Your task to perform on an android device: turn off picture-in-picture Image 0: 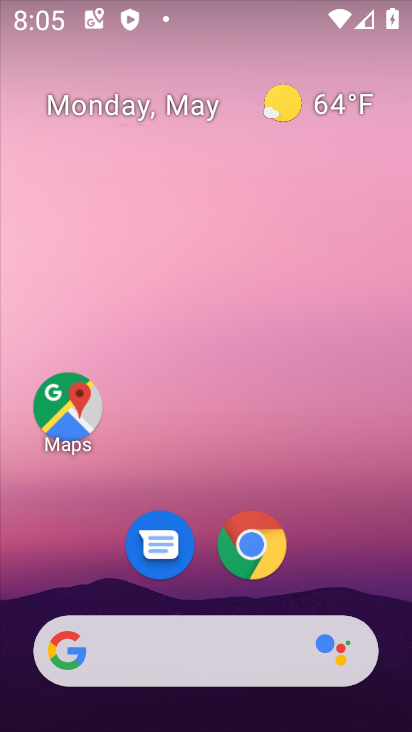
Step 0: press home button
Your task to perform on an android device: turn off picture-in-picture Image 1: 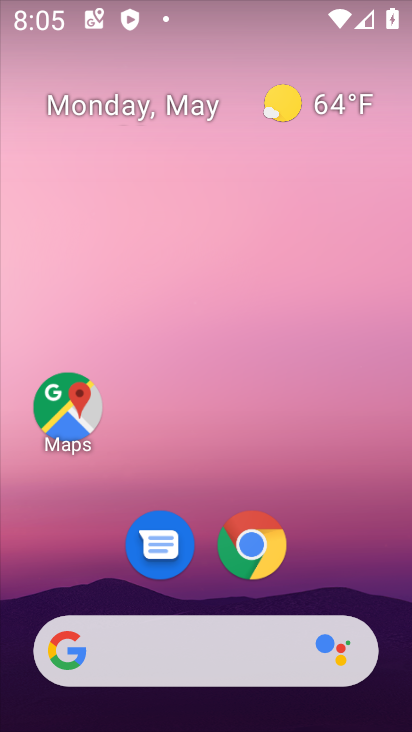
Step 1: click (268, 567)
Your task to perform on an android device: turn off picture-in-picture Image 2: 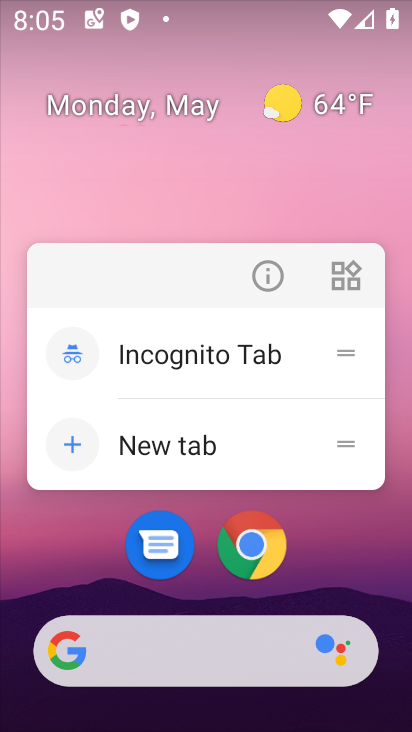
Step 2: click (262, 283)
Your task to perform on an android device: turn off picture-in-picture Image 3: 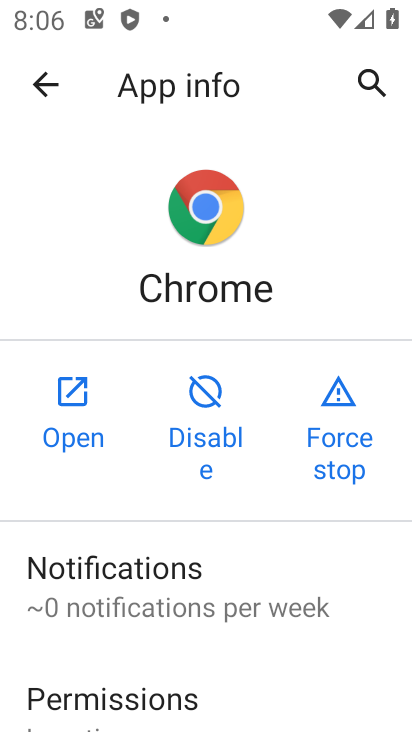
Step 3: drag from (235, 622) to (4, 19)
Your task to perform on an android device: turn off picture-in-picture Image 4: 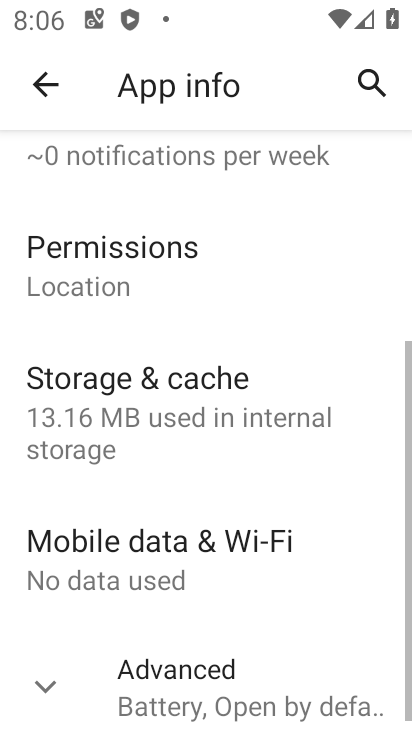
Step 4: click (96, 688)
Your task to perform on an android device: turn off picture-in-picture Image 5: 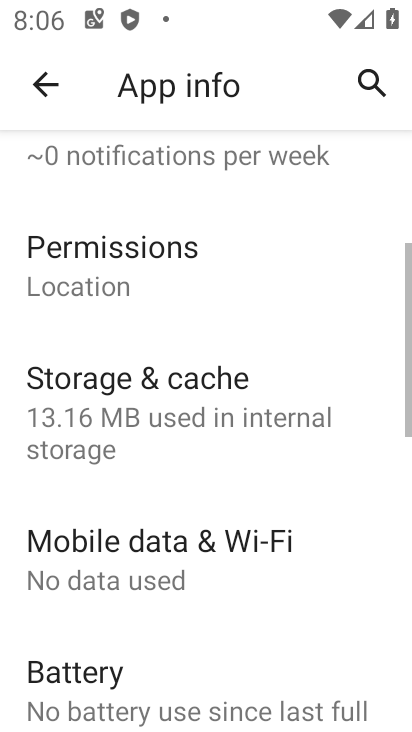
Step 5: drag from (162, 640) to (185, 96)
Your task to perform on an android device: turn off picture-in-picture Image 6: 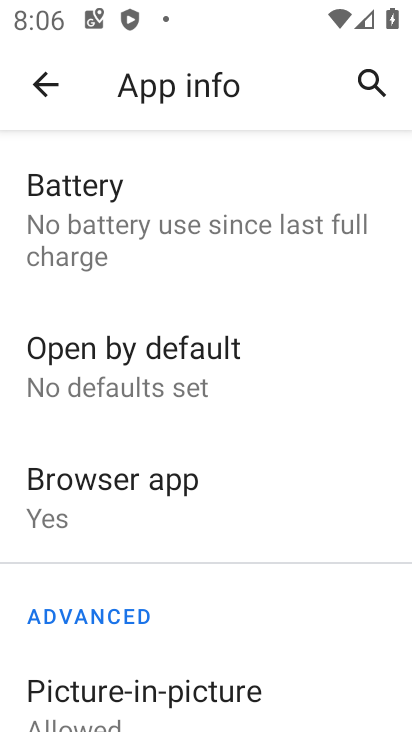
Step 6: click (93, 693)
Your task to perform on an android device: turn off picture-in-picture Image 7: 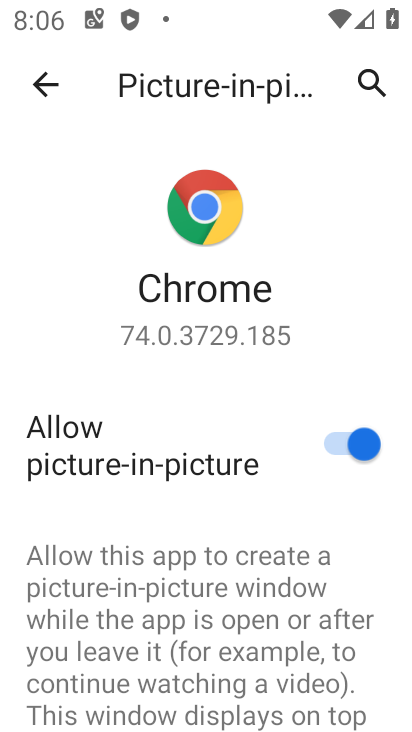
Step 7: click (341, 441)
Your task to perform on an android device: turn off picture-in-picture Image 8: 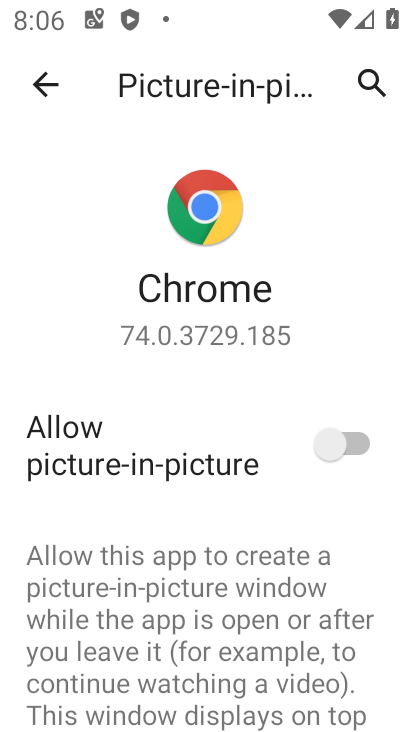
Step 8: task complete